Your task to perform on an android device: change the clock display to show seconds Image 0: 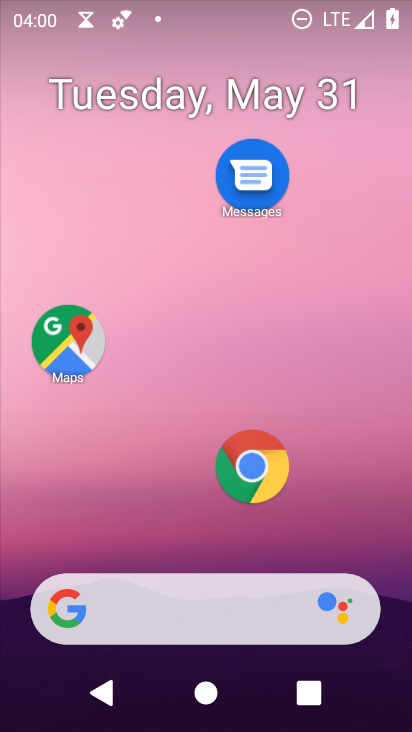
Step 0: drag from (141, 562) to (205, 137)
Your task to perform on an android device: change the clock display to show seconds Image 1: 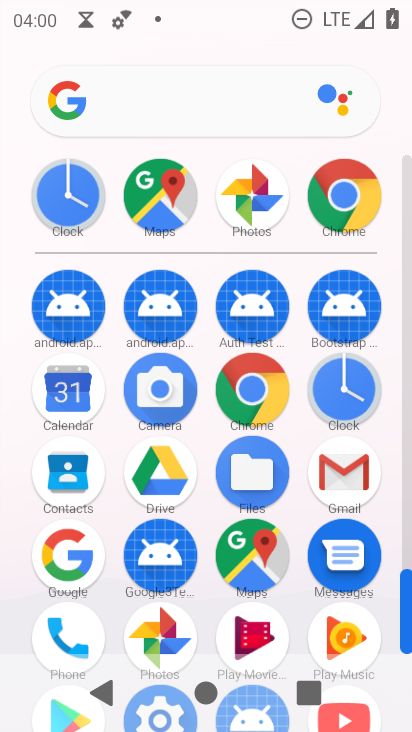
Step 1: click (65, 181)
Your task to perform on an android device: change the clock display to show seconds Image 2: 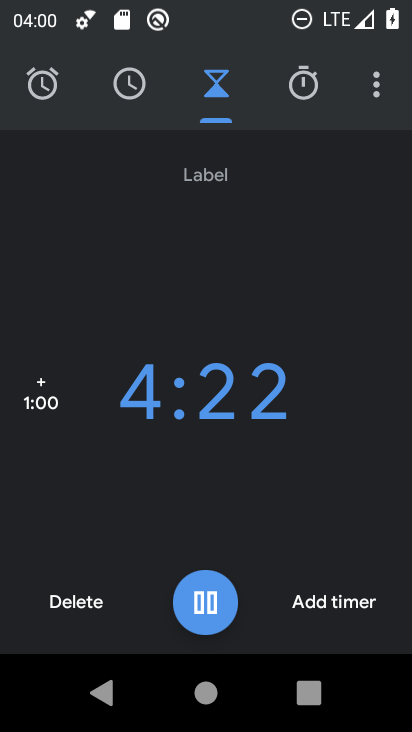
Step 2: click (371, 74)
Your task to perform on an android device: change the clock display to show seconds Image 3: 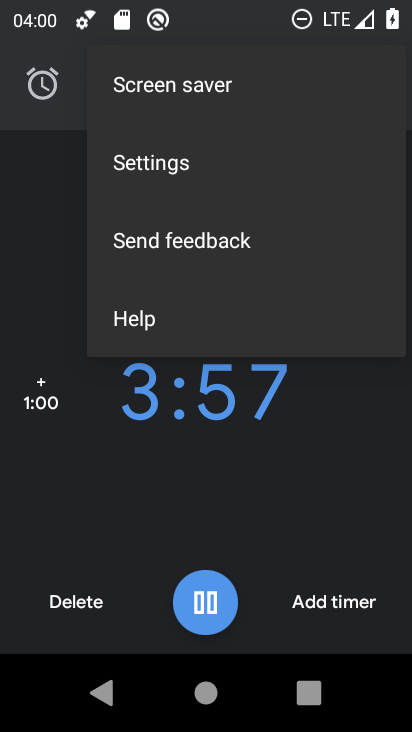
Step 3: click (174, 161)
Your task to perform on an android device: change the clock display to show seconds Image 4: 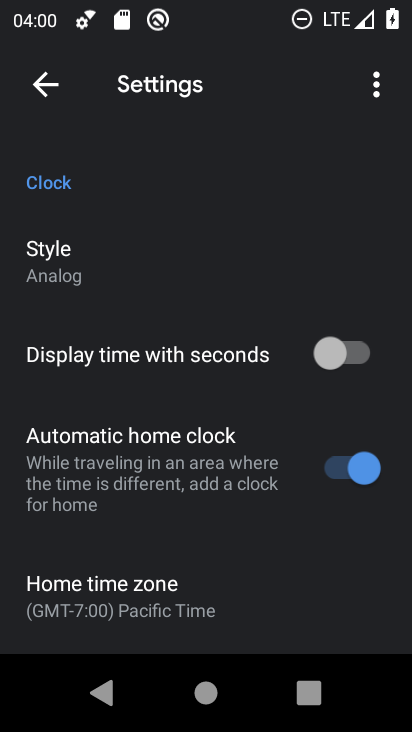
Step 4: click (81, 251)
Your task to perform on an android device: change the clock display to show seconds Image 5: 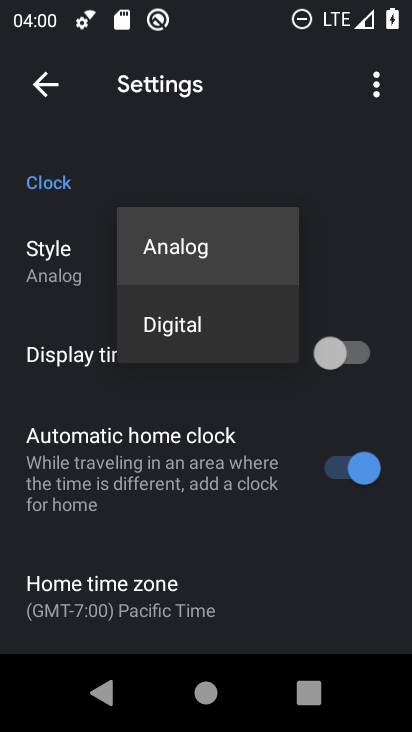
Step 5: click (173, 319)
Your task to perform on an android device: change the clock display to show seconds Image 6: 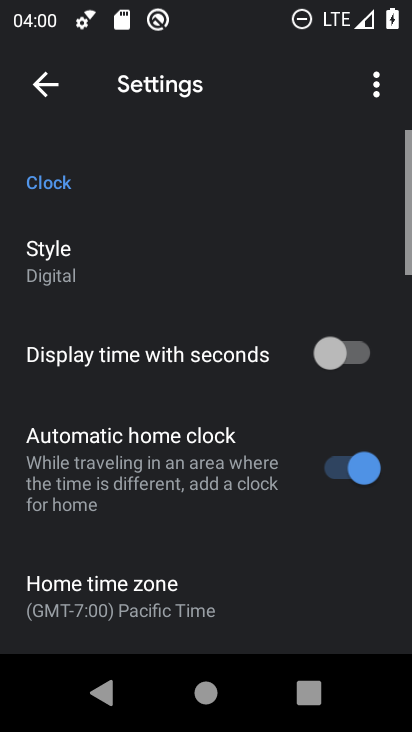
Step 6: click (348, 350)
Your task to perform on an android device: change the clock display to show seconds Image 7: 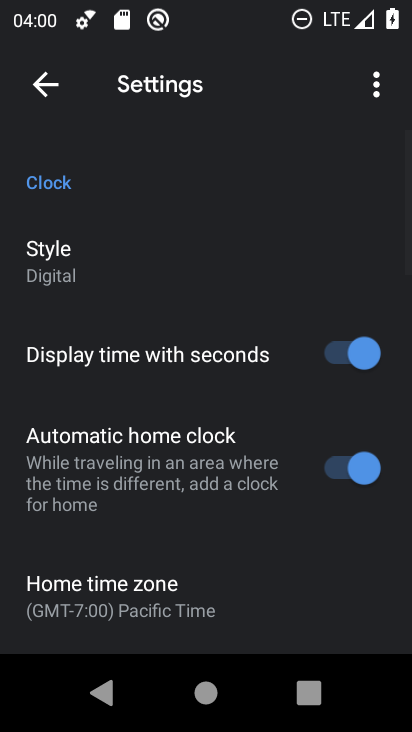
Step 7: task complete